Your task to perform on an android device: Open Wikipedia Image 0: 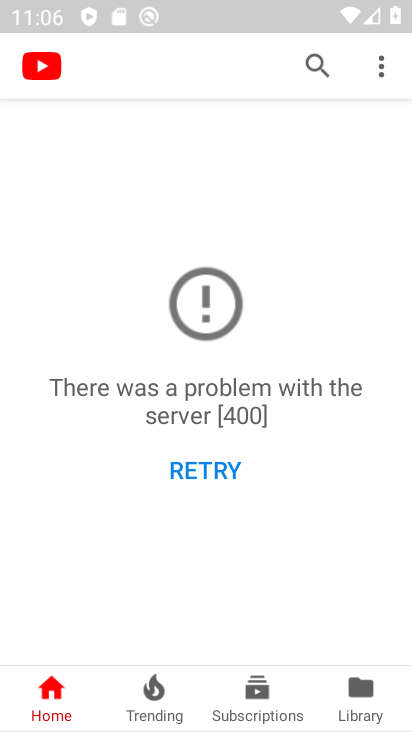
Step 0: press home button
Your task to perform on an android device: Open Wikipedia Image 1: 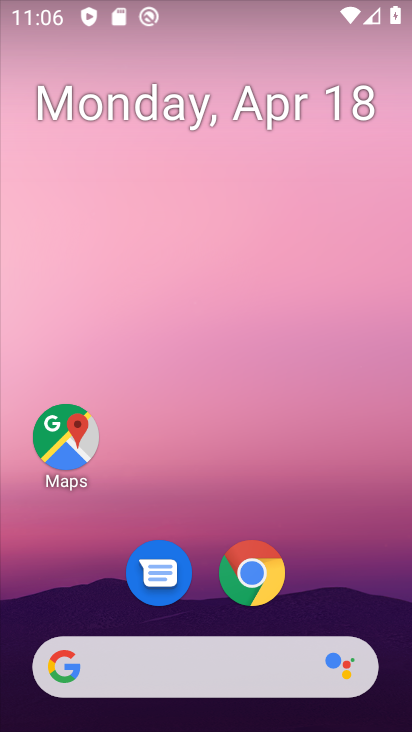
Step 1: click (226, 661)
Your task to perform on an android device: Open Wikipedia Image 2: 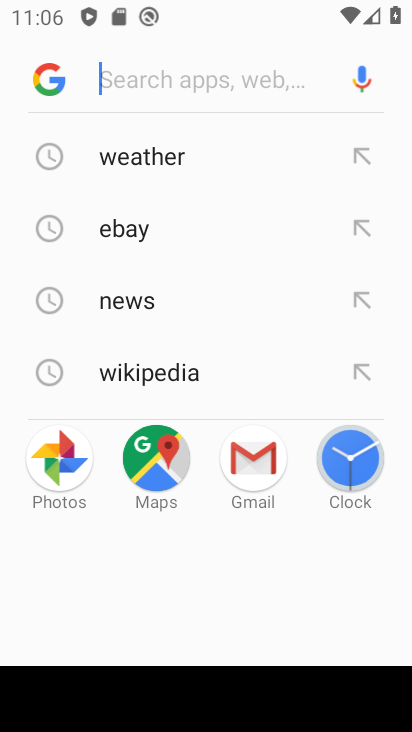
Step 2: type "Wikipedia"
Your task to perform on an android device: Open Wikipedia Image 3: 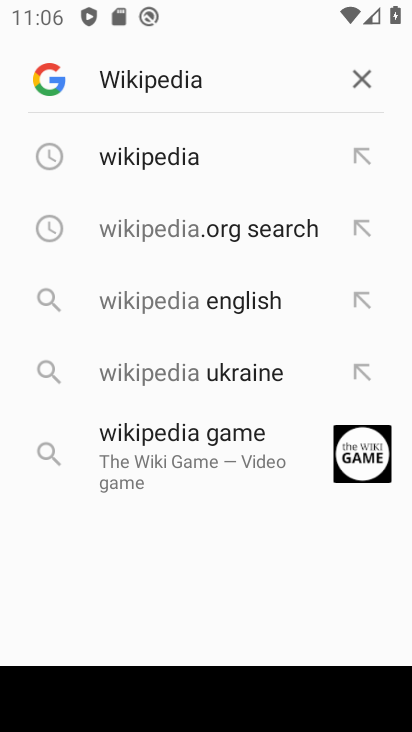
Step 3: click (184, 232)
Your task to perform on an android device: Open Wikipedia Image 4: 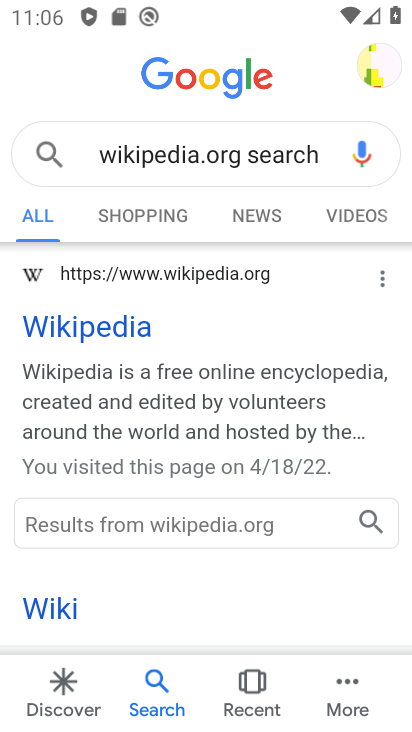
Step 4: click (90, 335)
Your task to perform on an android device: Open Wikipedia Image 5: 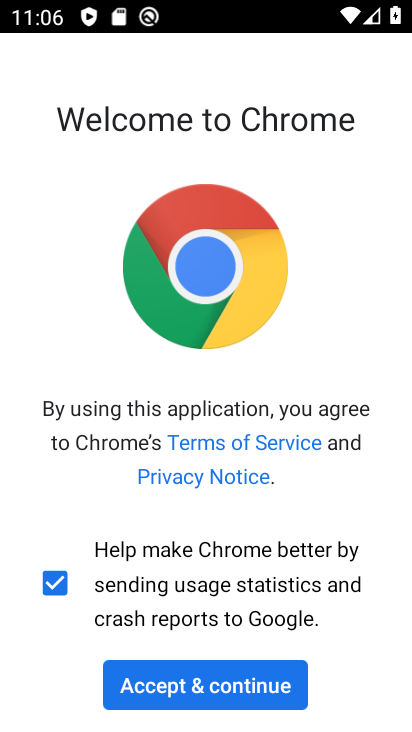
Step 5: click (224, 682)
Your task to perform on an android device: Open Wikipedia Image 6: 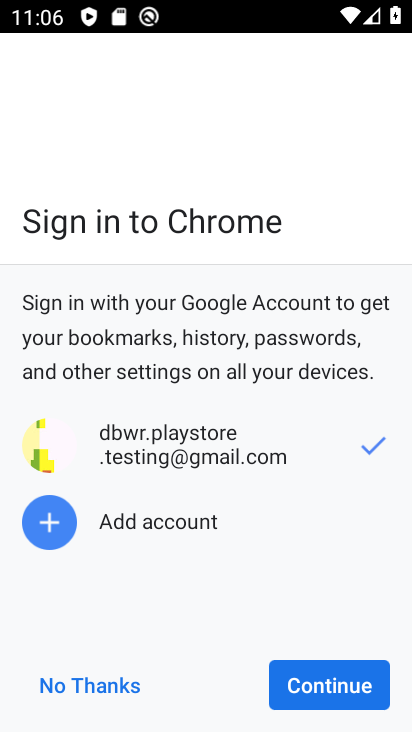
Step 6: click (310, 669)
Your task to perform on an android device: Open Wikipedia Image 7: 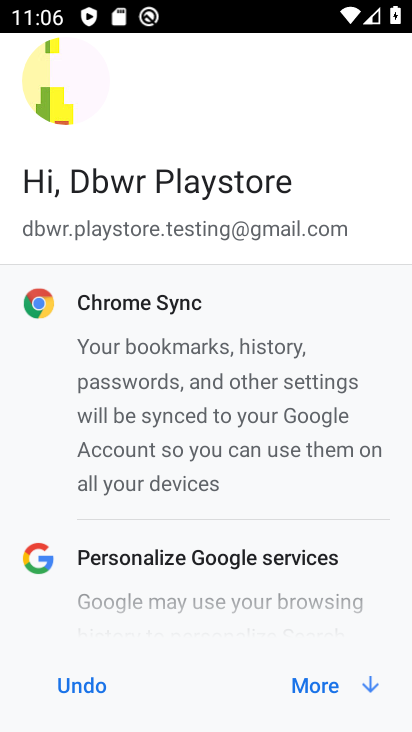
Step 7: click (310, 669)
Your task to perform on an android device: Open Wikipedia Image 8: 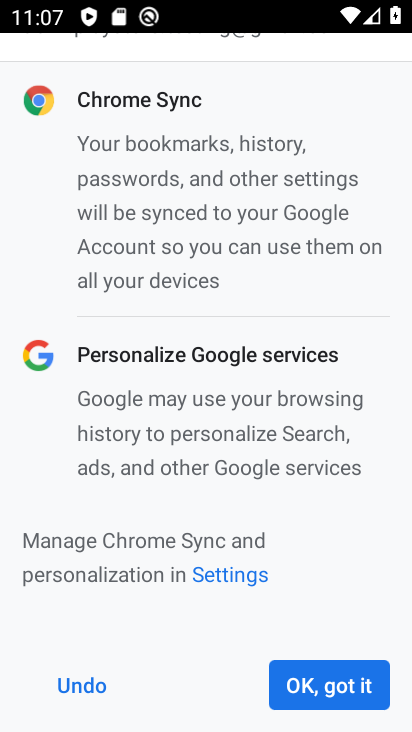
Step 8: click (310, 669)
Your task to perform on an android device: Open Wikipedia Image 9: 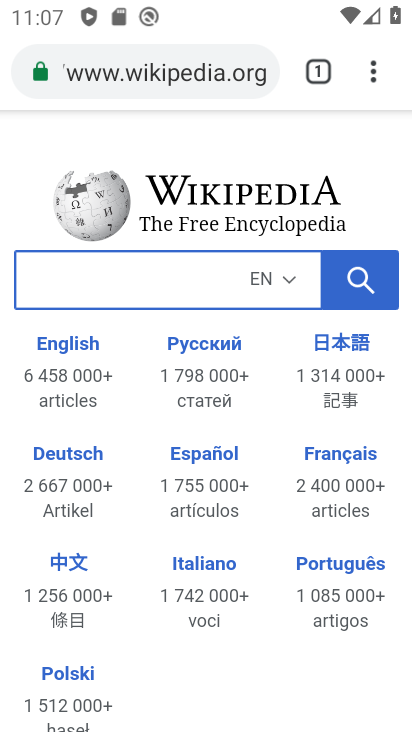
Step 9: task complete